Your task to perform on an android device: When is my next appointment? Image 0: 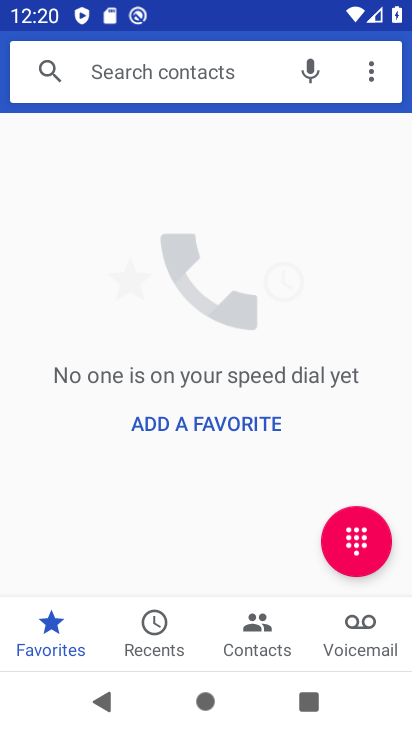
Step 0: press home button
Your task to perform on an android device: When is my next appointment? Image 1: 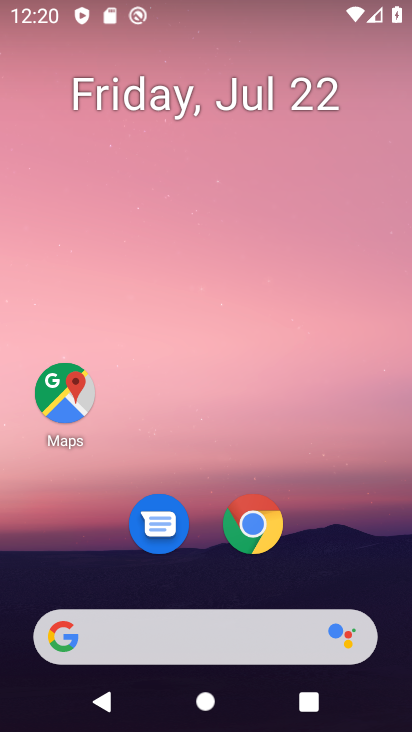
Step 1: drag from (141, 624) to (334, 136)
Your task to perform on an android device: When is my next appointment? Image 2: 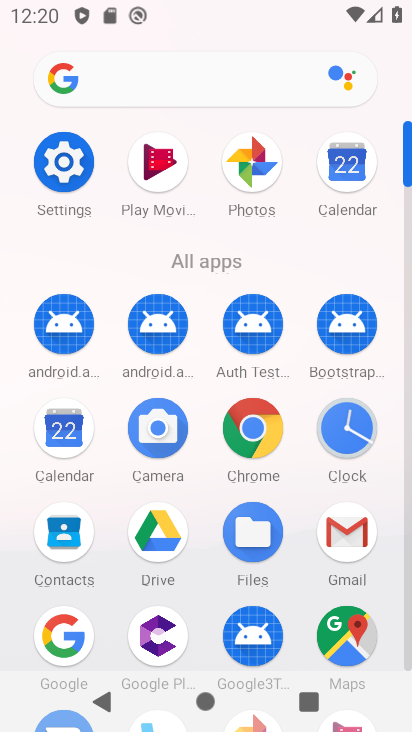
Step 2: click (347, 166)
Your task to perform on an android device: When is my next appointment? Image 3: 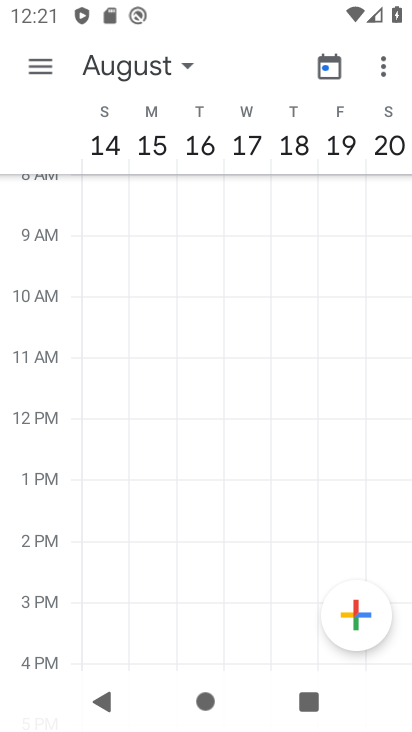
Step 3: click (109, 73)
Your task to perform on an android device: When is my next appointment? Image 4: 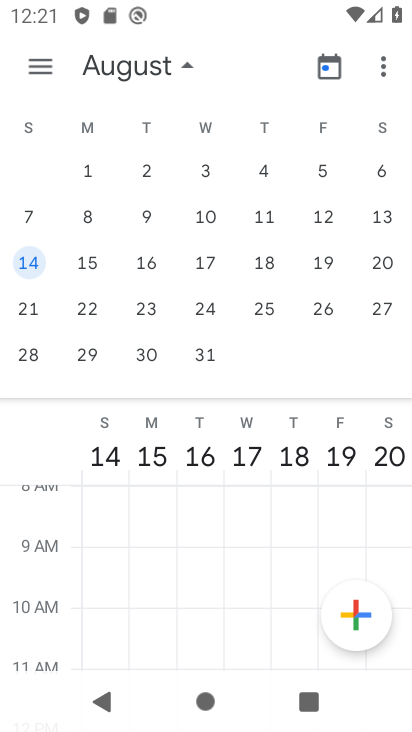
Step 4: drag from (79, 298) to (403, 268)
Your task to perform on an android device: When is my next appointment? Image 5: 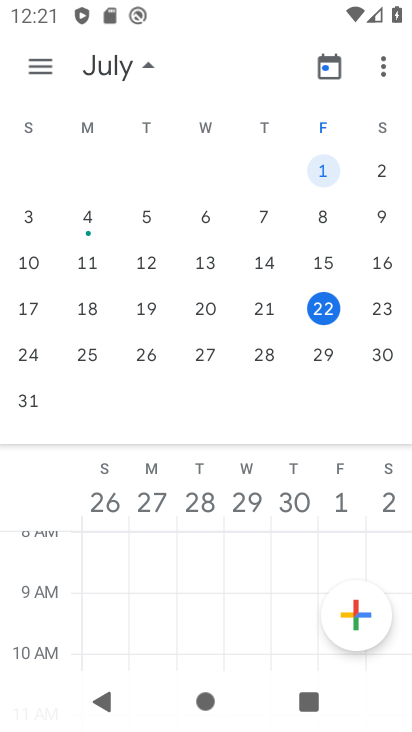
Step 5: click (315, 317)
Your task to perform on an android device: When is my next appointment? Image 6: 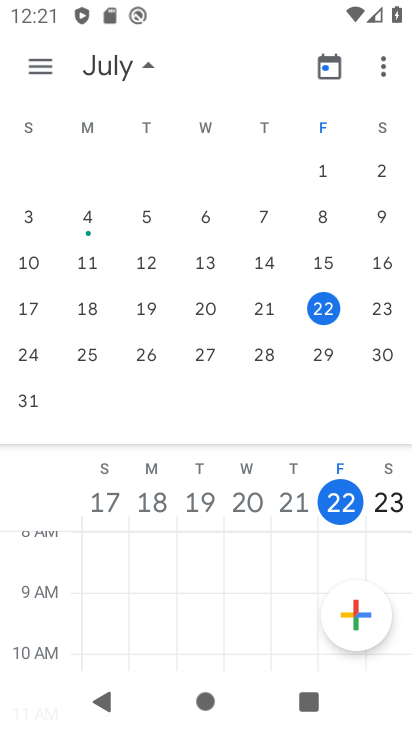
Step 6: click (39, 61)
Your task to perform on an android device: When is my next appointment? Image 7: 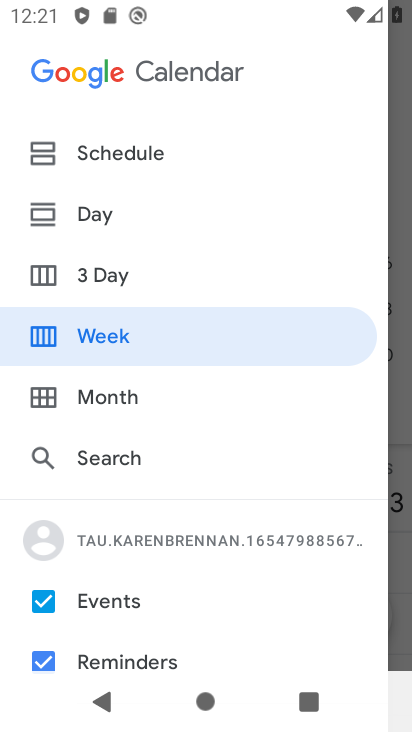
Step 7: click (142, 153)
Your task to perform on an android device: When is my next appointment? Image 8: 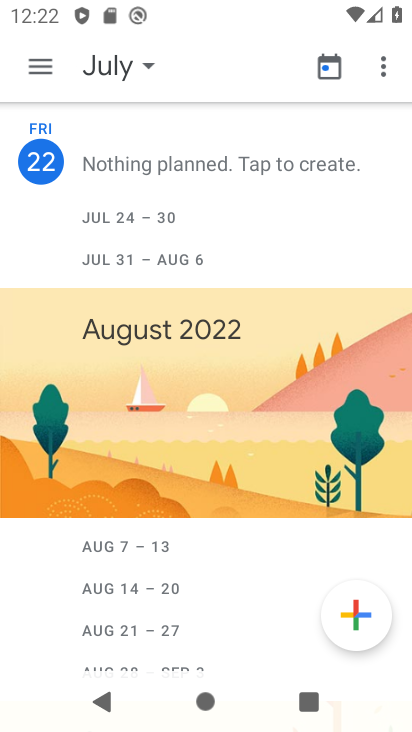
Step 8: task complete